Your task to perform on an android device: Go to Yahoo.com Image 0: 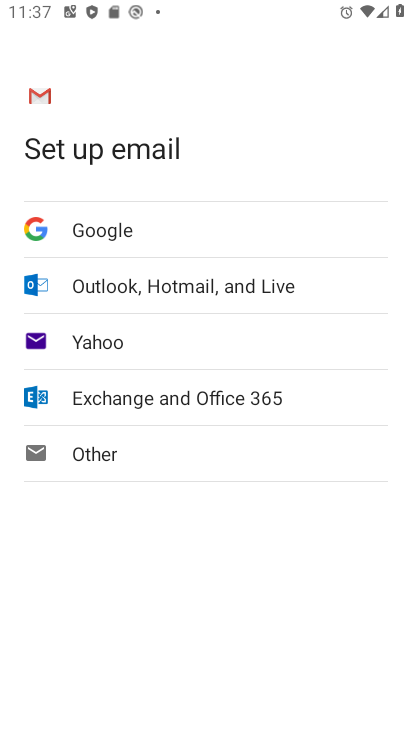
Step 0: press home button
Your task to perform on an android device: Go to Yahoo.com Image 1: 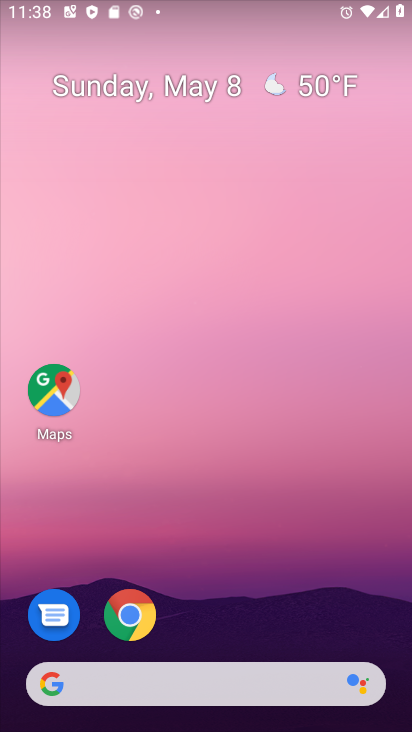
Step 1: drag from (323, 714) to (401, 289)
Your task to perform on an android device: Go to Yahoo.com Image 2: 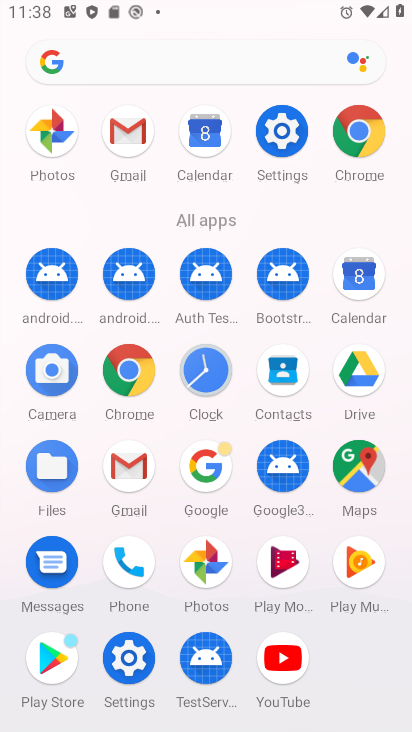
Step 2: click (350, 150)
Your task to perform on an android device: Go to Yahoo.com Image 3: 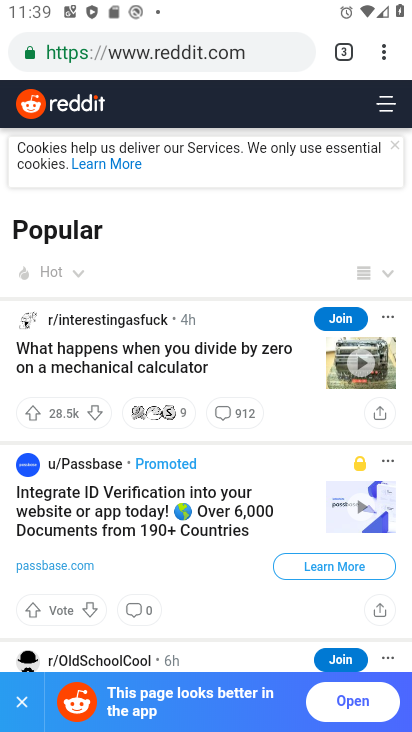
Step 3: click (346, 41)
Your task to perform on an android device: Go to Yahoo.com Image 4: 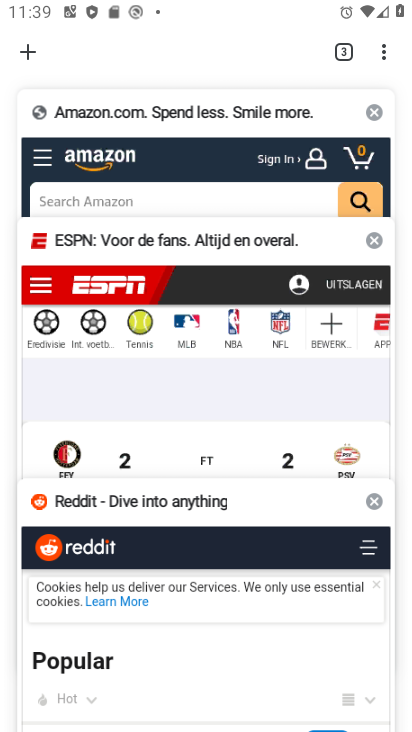
Step 4: click (34, 54)
Your task to perform on an android device: Go to Yahoo.com Image 5: 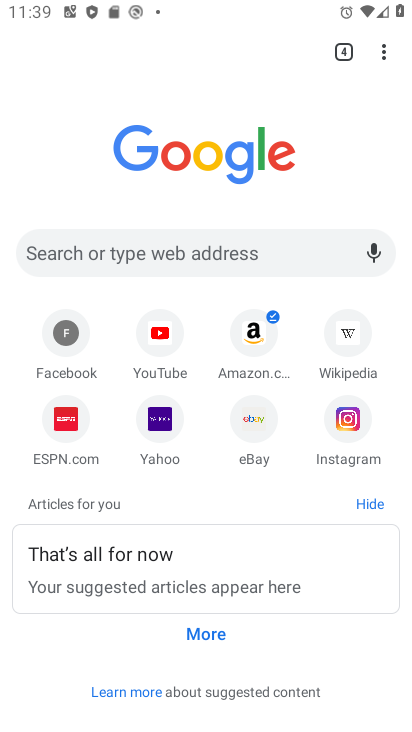
Step 5: click (170, 419)
Your task to perform on an android device: Go to Yahoo.com Image 6: 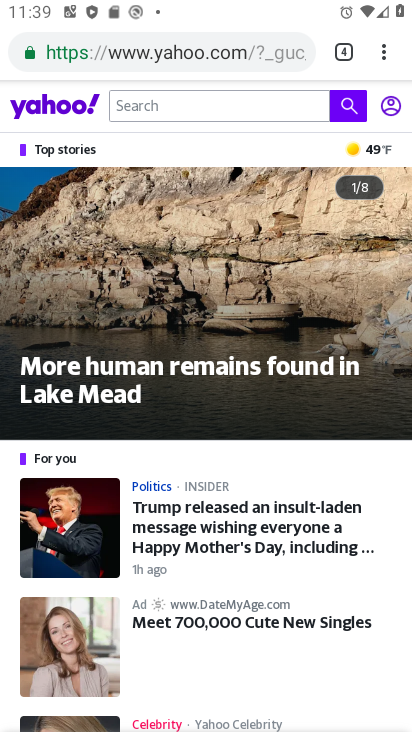
Step 6: task complete